Your task to perform on an android device: Set the phone to "Do not disturb". Image 0: 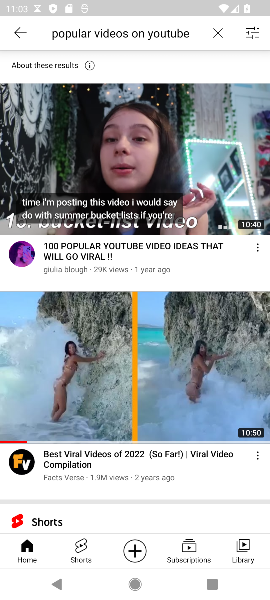
Step 0: press home button
Your task to perform on an android device: Set the phone to "Do not disturb". Image 1: 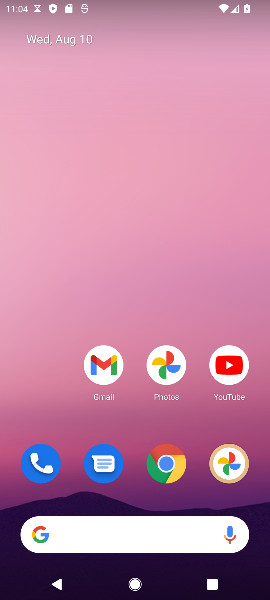
Step 1: drag from (19, 582) to (152, 282)
Your task to perform on an android device: Set the phone to "Do not disturb". Image 2: 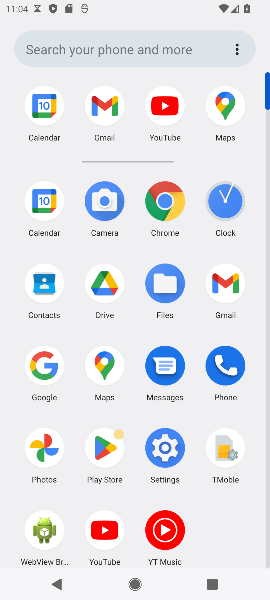
Step 2: click (155, 444)
Your task to perform on an android device: Set the phone to "Do not disturb". Image 3: 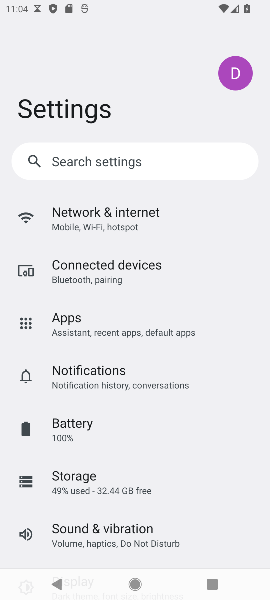
Step 3: drag from (194, 524) to (194, 260)
Your task to perform on an android device: Set the phone to "Do not disturb". Image 4: 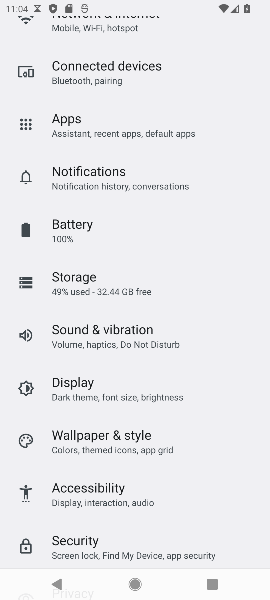
Step 4: click (131, 338)
Your task to perform on an android device: Set the phone to "Do not disturb". Image 5: 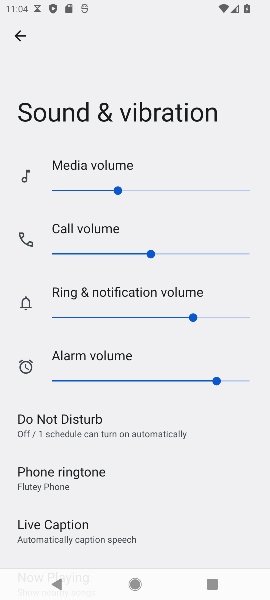
Step 5: click (73, 435)
Your task to perform on an android device: Set the phone to "Do not disturb". Image 6: 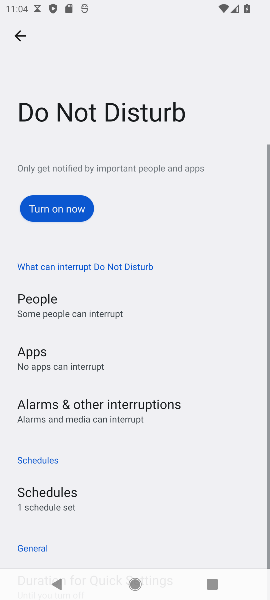
Step 6: click (41, 211)
Your task to perform on an android device: Set the phone to "Do not disturb". Image 7: 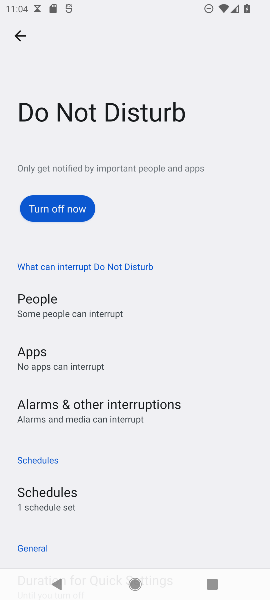
Step 7: task complete